Your task to perform on an android device: Open Google Maps and go to "Timeline" Image 0: 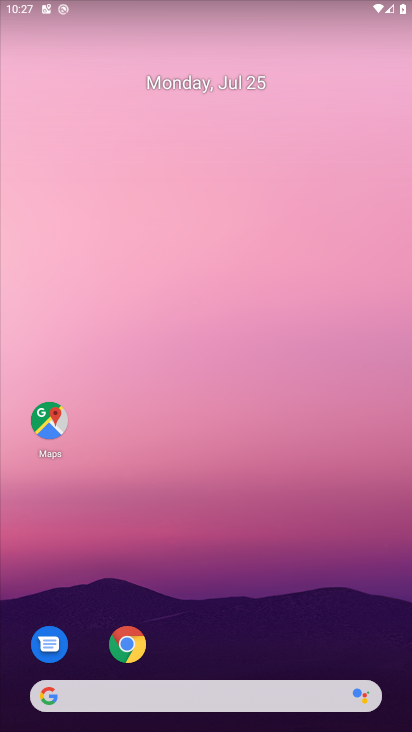
Step 0: drag from (287, 666) to (269, 133)
Your task to perform on an android device: Open Google Maps and go to "Timeline" Image 1: 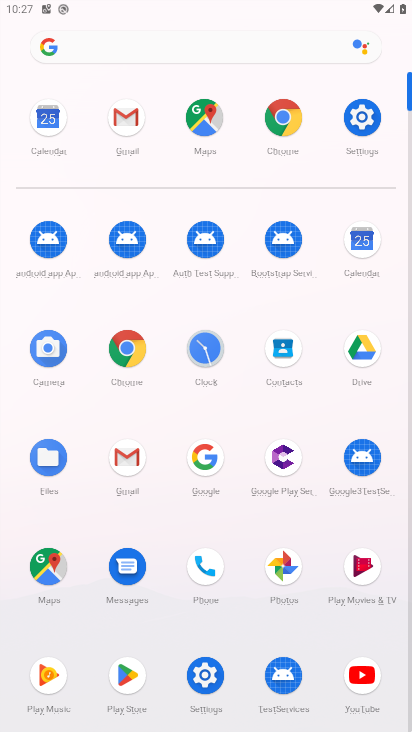
Step 1: click (204, 130)
Your task to perform on an android device: Open Google Maps and go to "Timeline" Image 2: 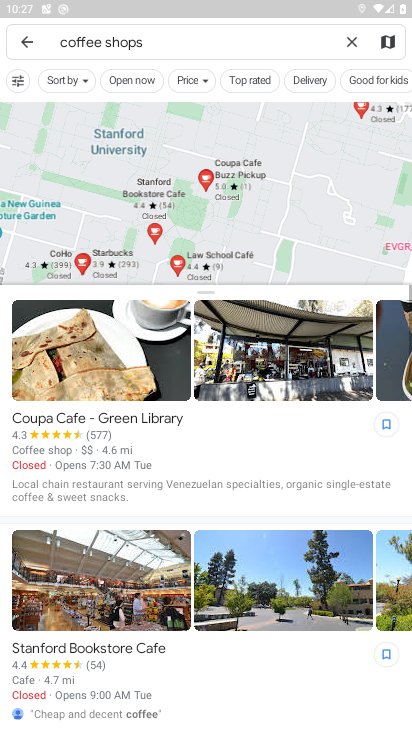
Step 2: click (15, 47)
Your task to perform on an android device: Open Google Maps and go to "Timeline" Image 3: 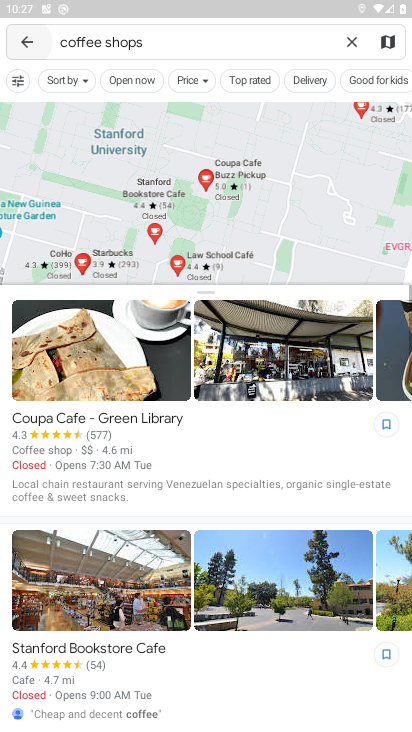
Step 3: click (15, 47)
Your task to perform on an android device: Open Google Maps and go to "Timeline" Image 4: 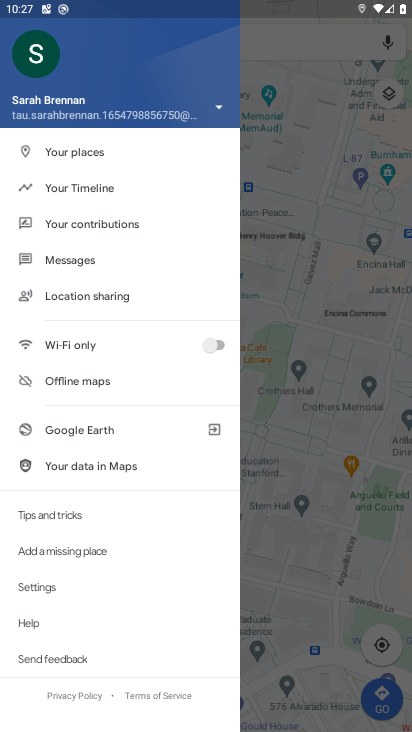
Step 4: click (56, 186)
Your task to perform on an android device: Open Google Maps and go to "Timeline" Image 5: 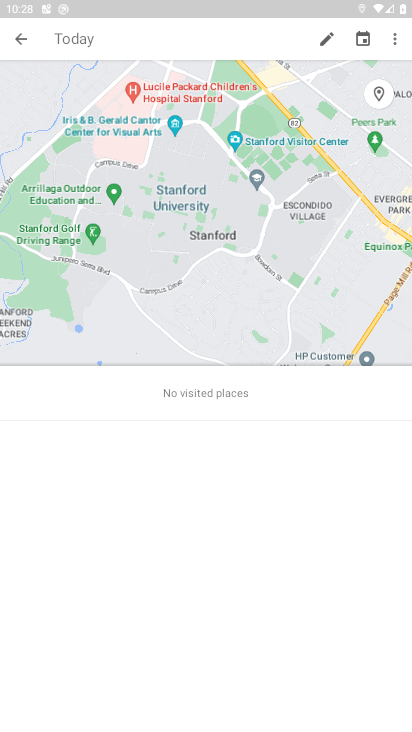
Step 5: task complete